Your task to perform on an android device: Go to Yahoo.com Image 0: 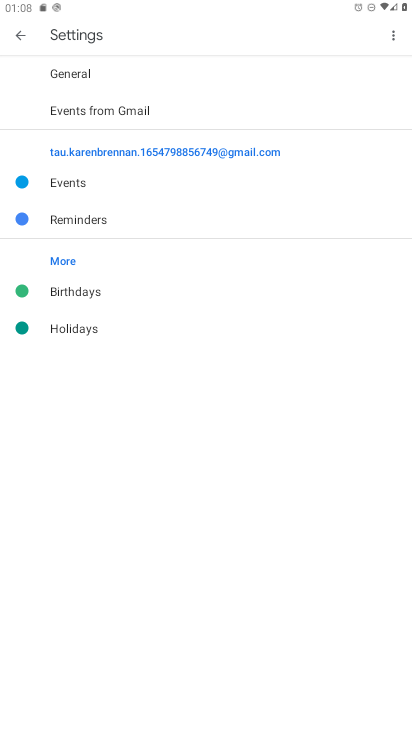
Step 0: press home button
Your task to perform on an android device: Go to Yahoo.com Image 1: 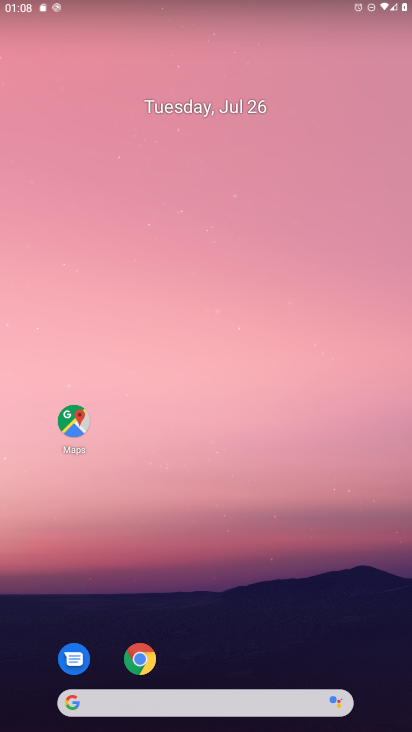
Step 1: drag from (291, 622) to (302, 50)
Your task to perform on an android device: Go to Yahoo.com Image 2: 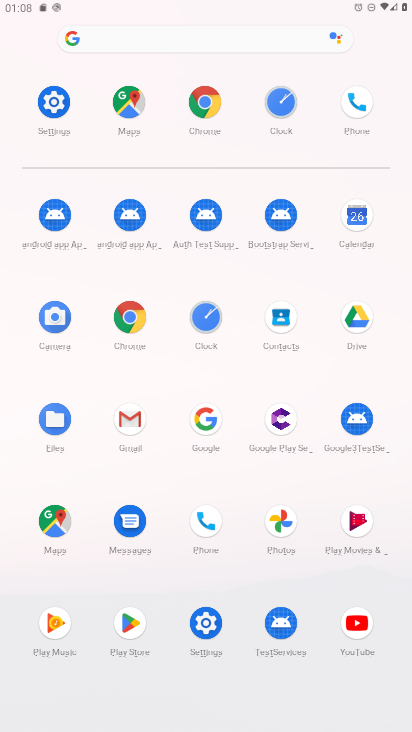
Step 2: click (201, 93)
Your task to perform on an android device: Go to Yahoo.com Image 3: 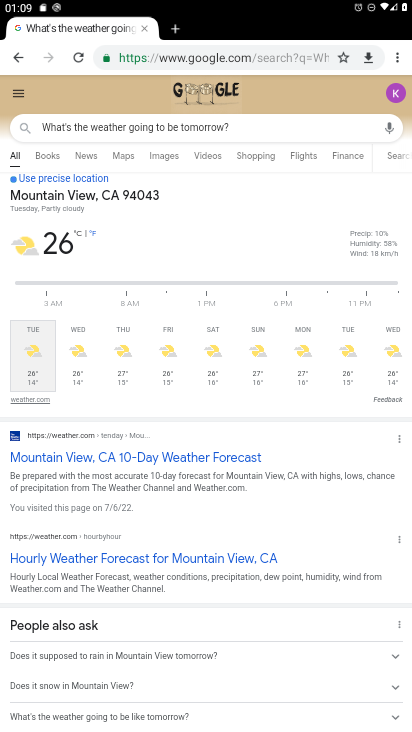
Step 3: click (180, 56)
Your task to perform on an android device: Go to Yahoo.com Image 4: 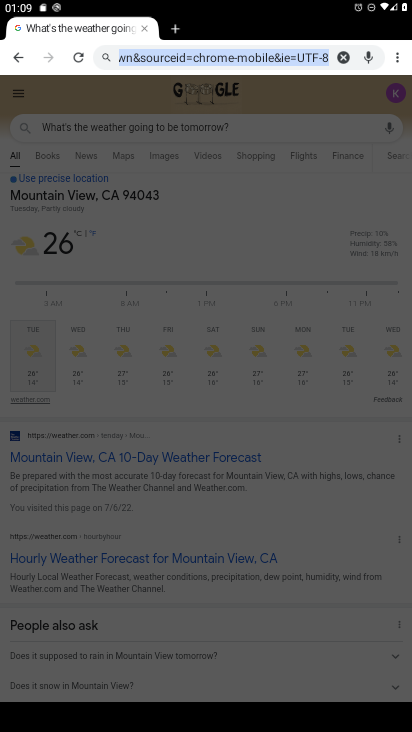
Step 4: type "Yahoo.com"
Your task to perform on an android device: Go to Yahoo.com Image 5: 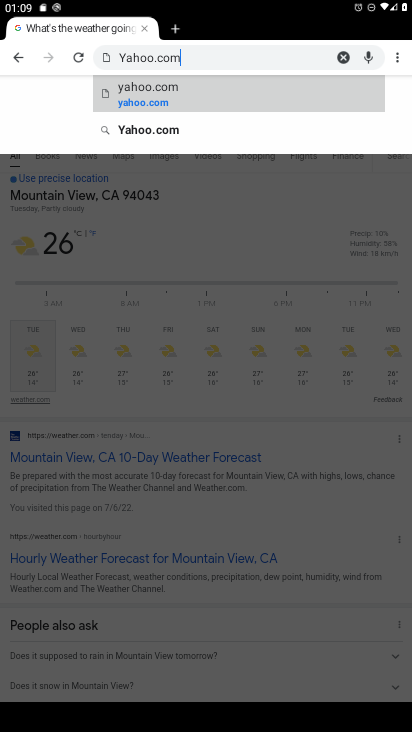
Step 5: click (161, 101)
Your task to perform on an android device: Go to Yahoo.com Image 6: 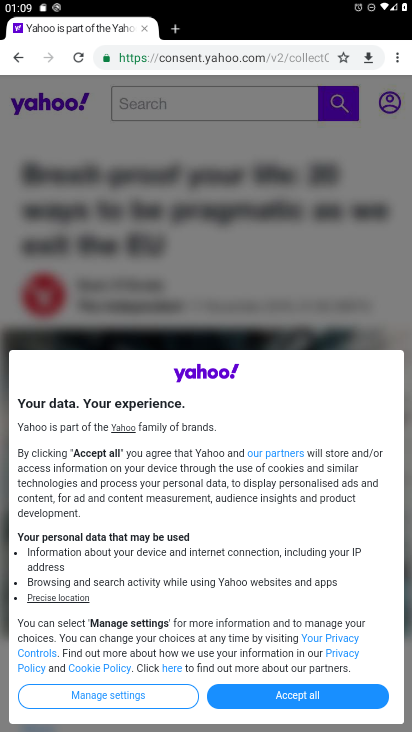
Step 6: click (302, 692)
Your task to perform on an android device: Go to Yahoo.com Image 7: 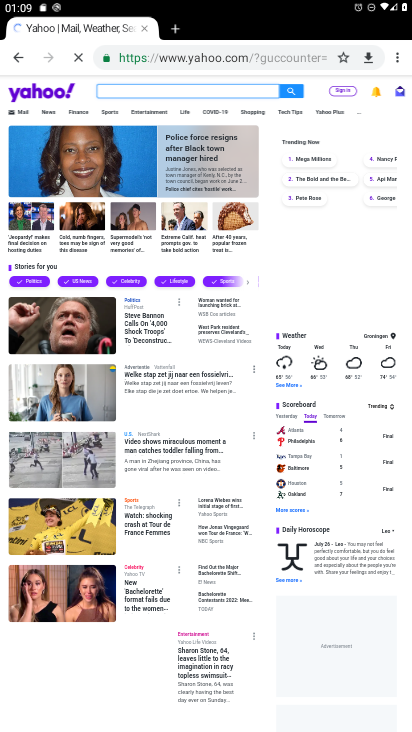
Step 7: task complete